Your task to perform on an android device: Search for a runner rug on Crate & Barrel. Image 0: 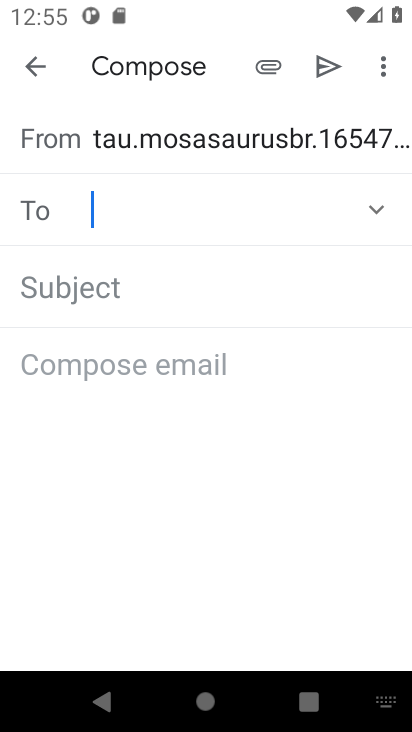
Step 0: press home button
Your task to perform on an android device: Search for a runner rug on Crate & Barrel. Image 1: 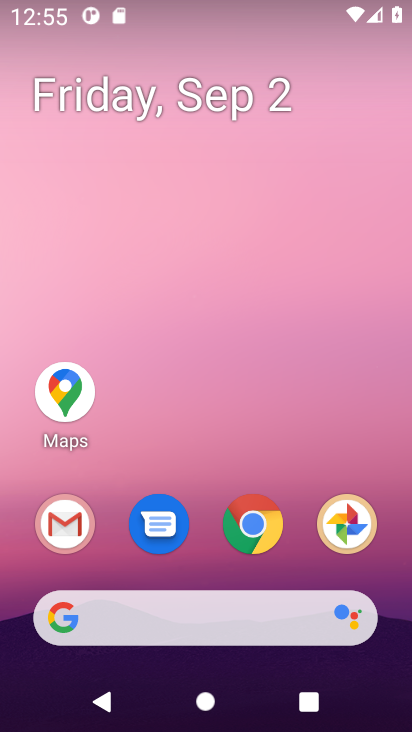
Step 1: click (255, 625)
Your task to perform on an android device: Search for a runner rug on Crate & Barrel. Image 2: 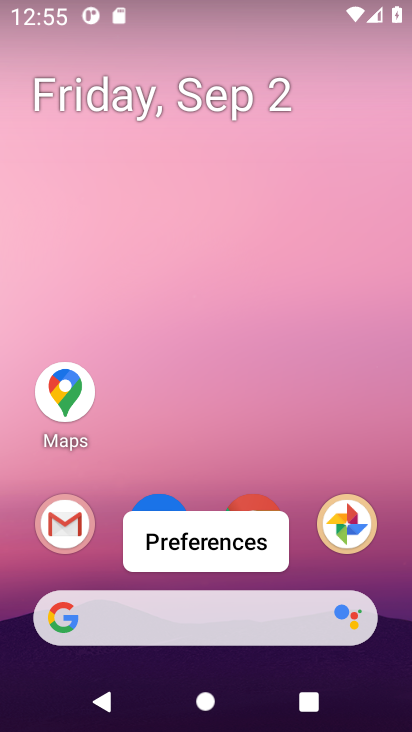
Step 2: click (255, 625)
Your task to perform on an android device: Search for a runner rug on Crate & Barrel. Image 3: 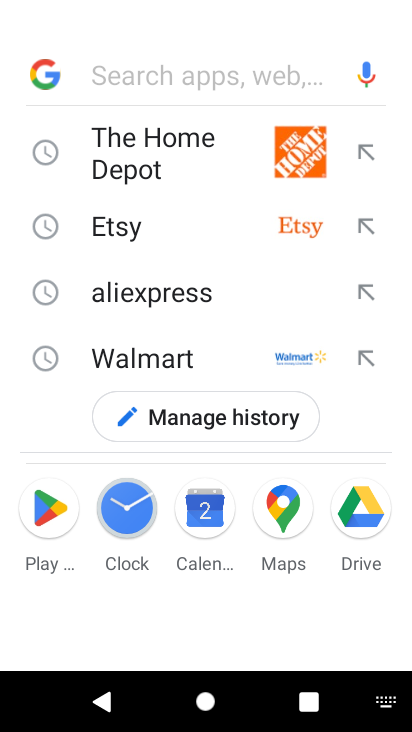
Step 3: press enter
Your task to perform on an android device: Search for a runner rug on Crate & Barrel. Image 4: 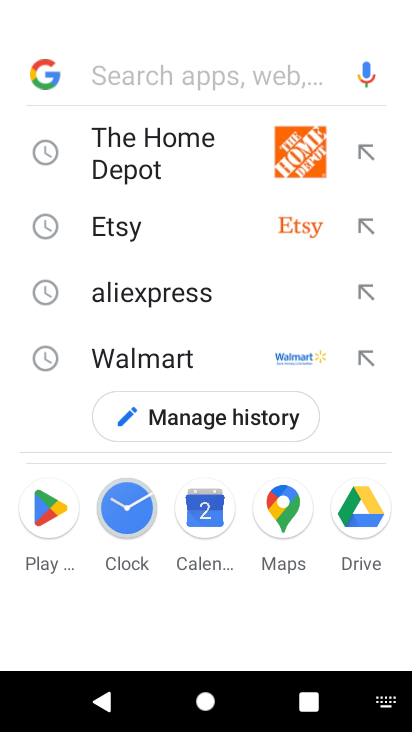
Step 4: type "crate barrel"
Your task to perform on an android device: Search for a runner rug on Crate & Barrel. Image 5: 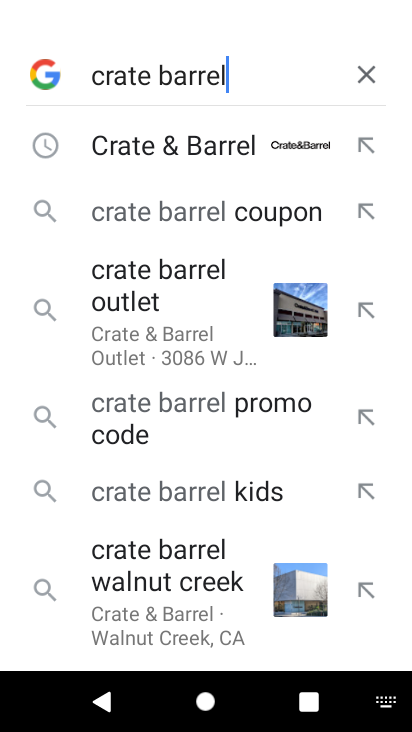
Step 5: click (218, 149)
Your task to perform on an android device: Search for a runner rug on Crate & Barrel. Image 6: 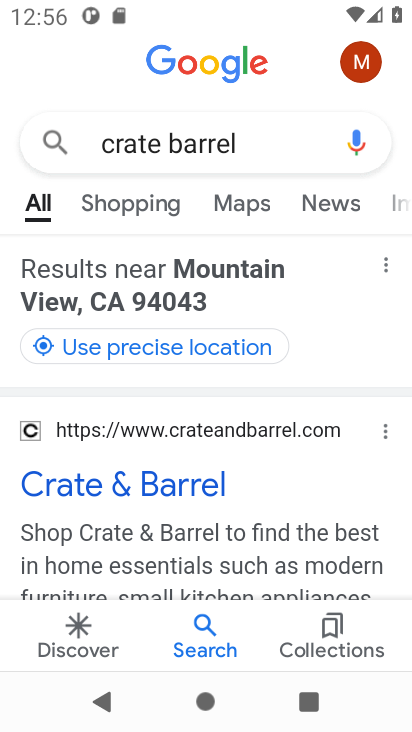
Step 6: click (205, 481)
Your task to perform on an android device: Search for a runner rug on Crate & Barrel. Image 7: 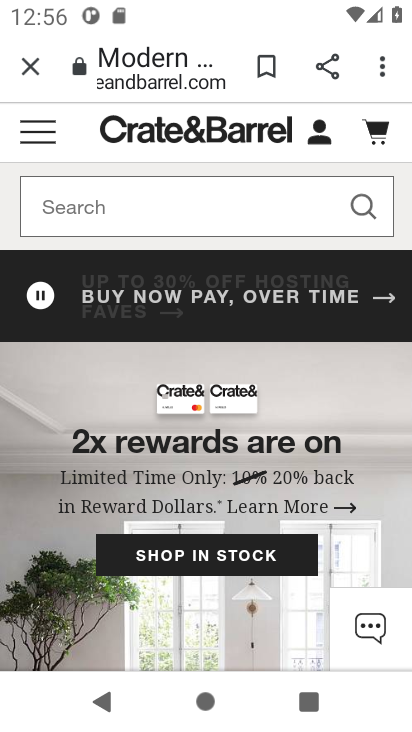
Step 7: click (234, 194)
Your task to perform on an android device: Search for a runner rug on Crate & Barrel. Image 8: 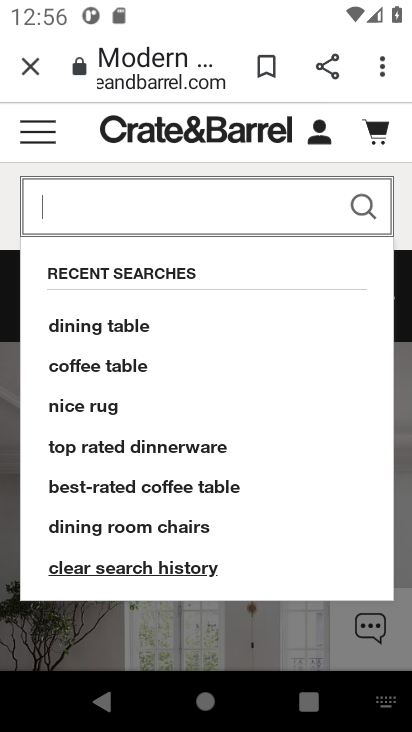
Step 8: press enter
Your task to perform on an android device: Search for a runner rug on Crate & Barrel. Image 9: 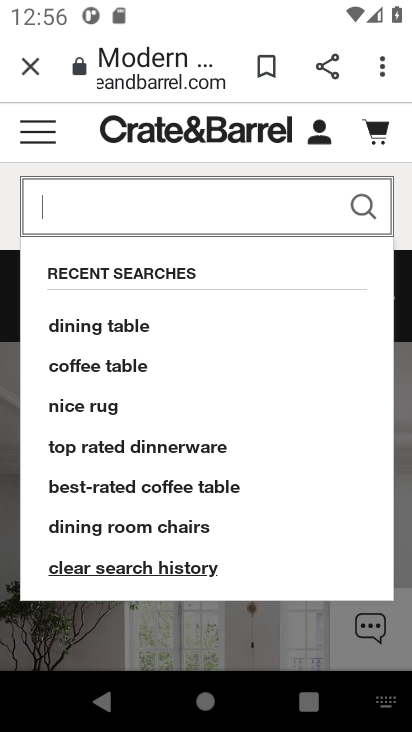
Step 9: type "runner rug"
Your task to perform on an android device: Search for a runner rug on Crate & Barrel. Image 10: 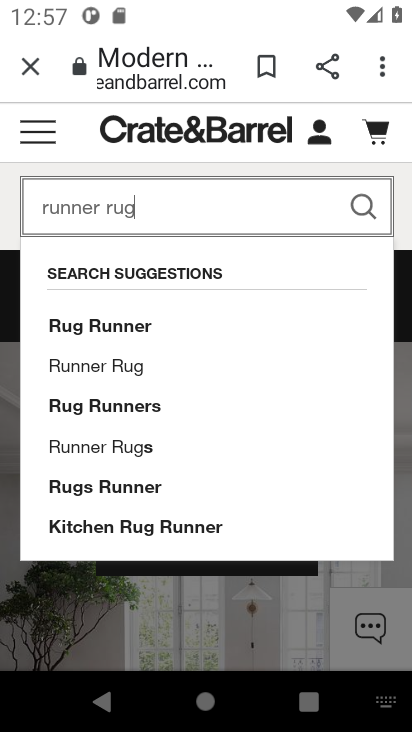
Step 10: click (123, 362)
Your task to perform on an android device: Search for a runner rug on Crate & Barrel. Image 11: 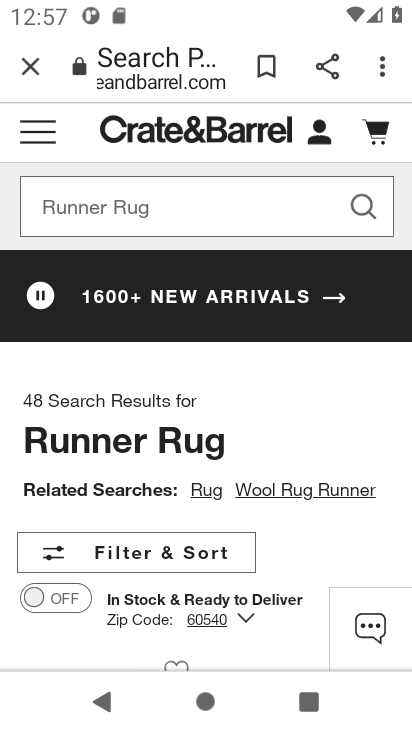
Step 11: task complete